Your task to perform on an android device: open app "PUBG MOBILE" (install if not already installed) Image 0: 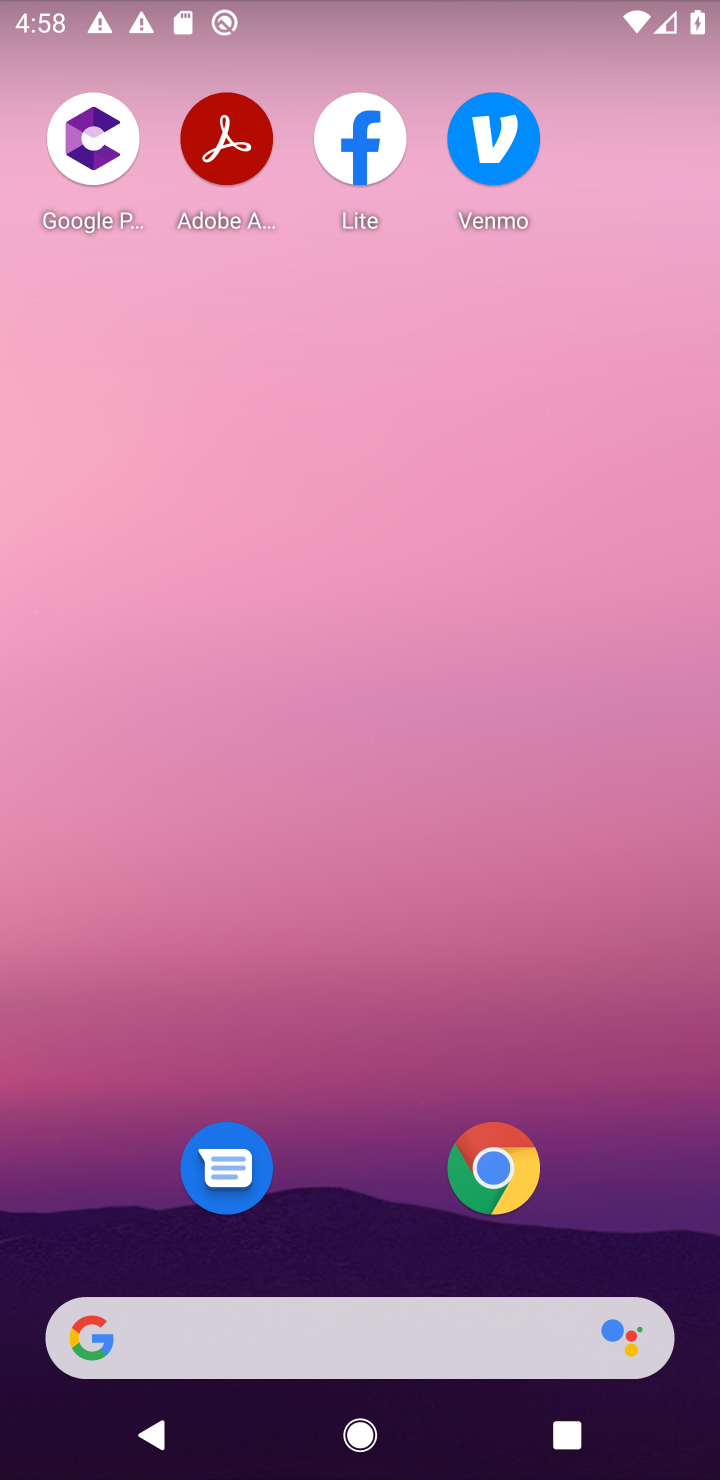
Step 0: drag from (324, 1073) to (388, 339)
Your task to perform on an android device: open app "PUBG MOBILE" (install if not already installed) Image 1: 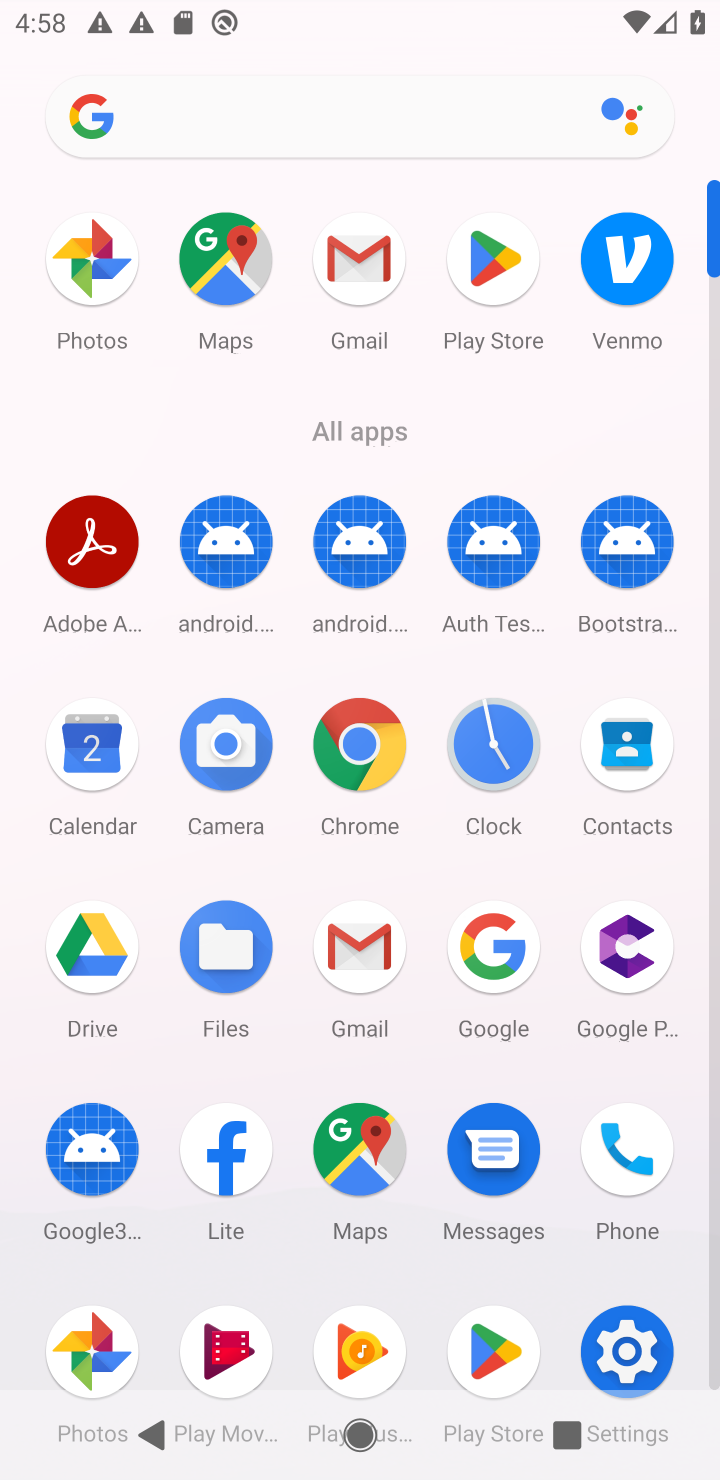
Step 1: click (499, 305)
Your task to perform on an android device: open app "PUBG MOBILE" (install if not already installed) Image 2: 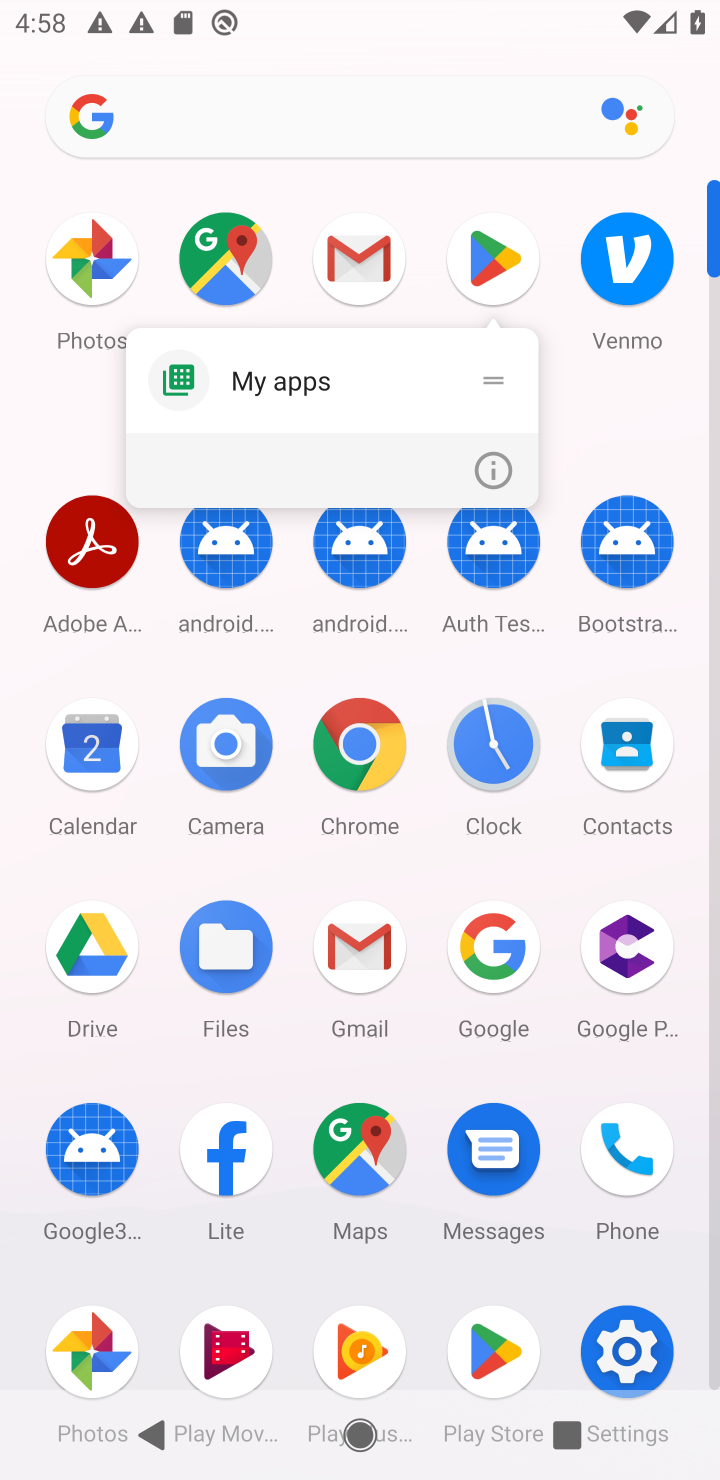
Step 2: click (514, 236)
Your task to perform on an android device: open app "PUBG MOBILE" (install if not already installed) Image 3: 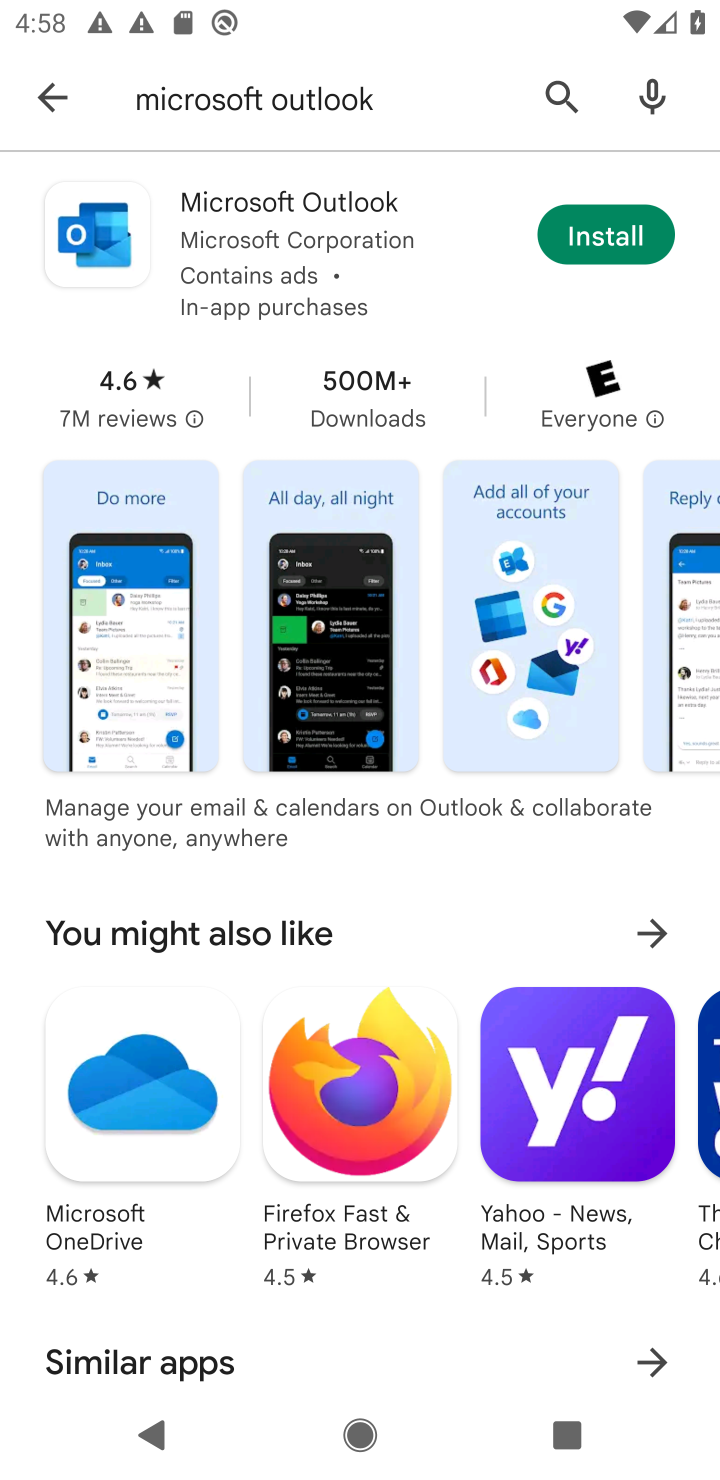
Step 3: click (261, 130)
Your task to perform on an android device: open app "PUBG MOBILE" (install if not already installed) Image 4: 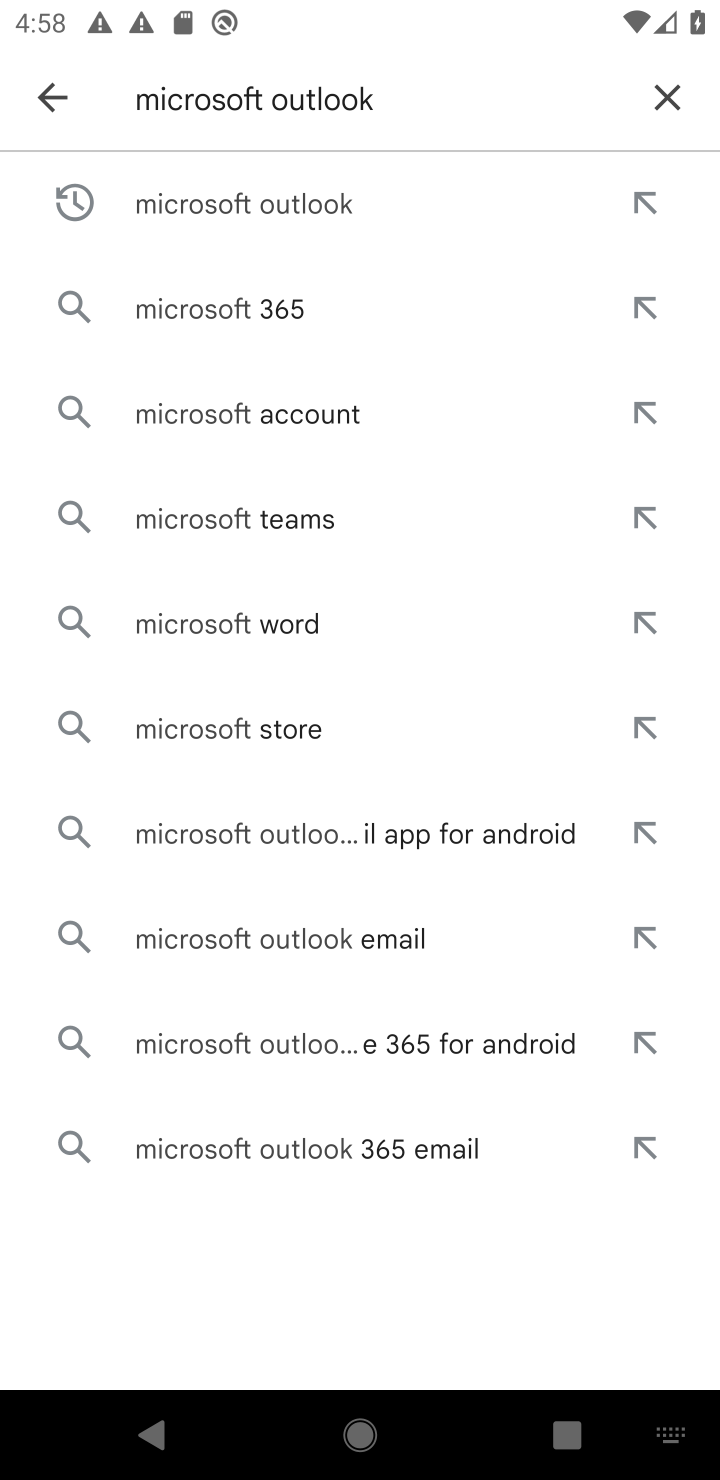
Step 4: click (669, 98)
Your task to perform on an android device: open app "PUBG MOBILE" (install if not already installed) Image 5: 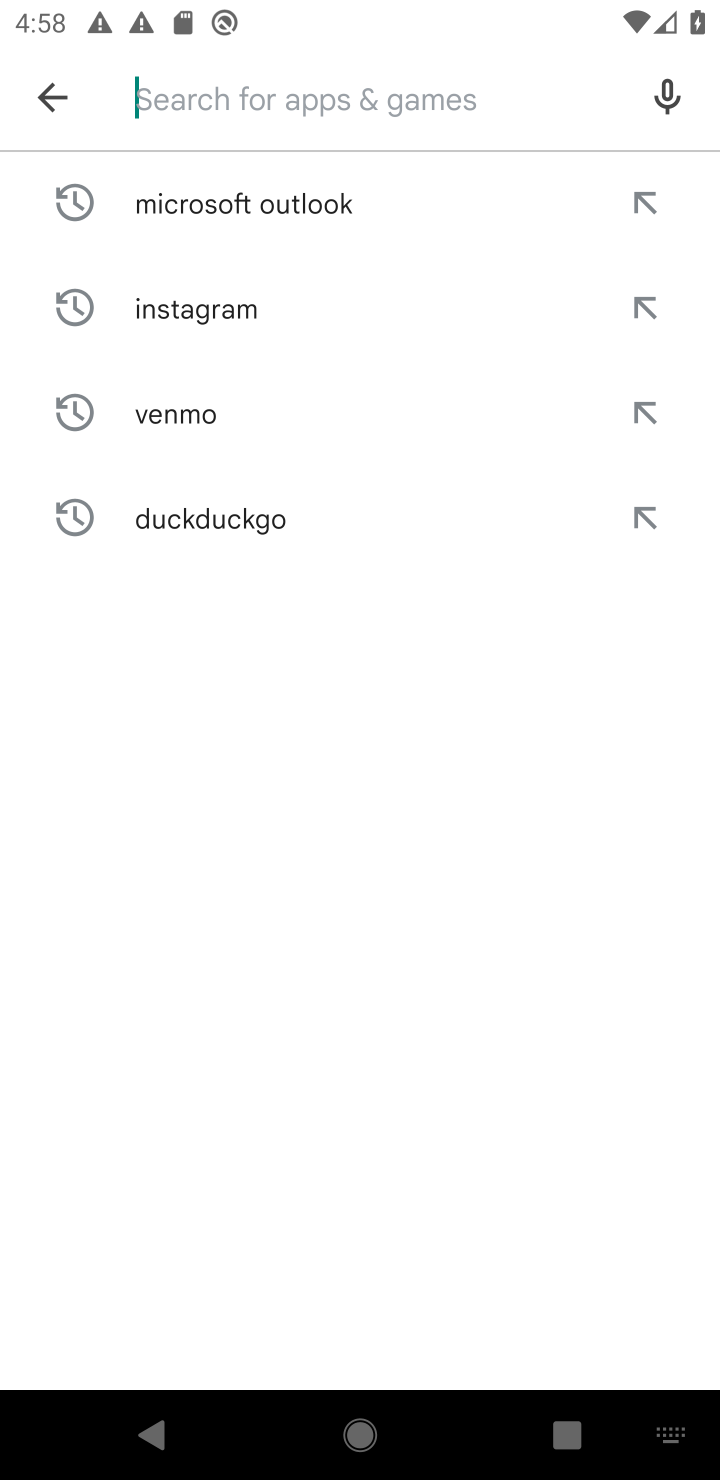
Step 5: type "Pubg Mobile"
Your task to perform on an android device: open app "PUBG MOBILE" (install if not already installed) Image 6: 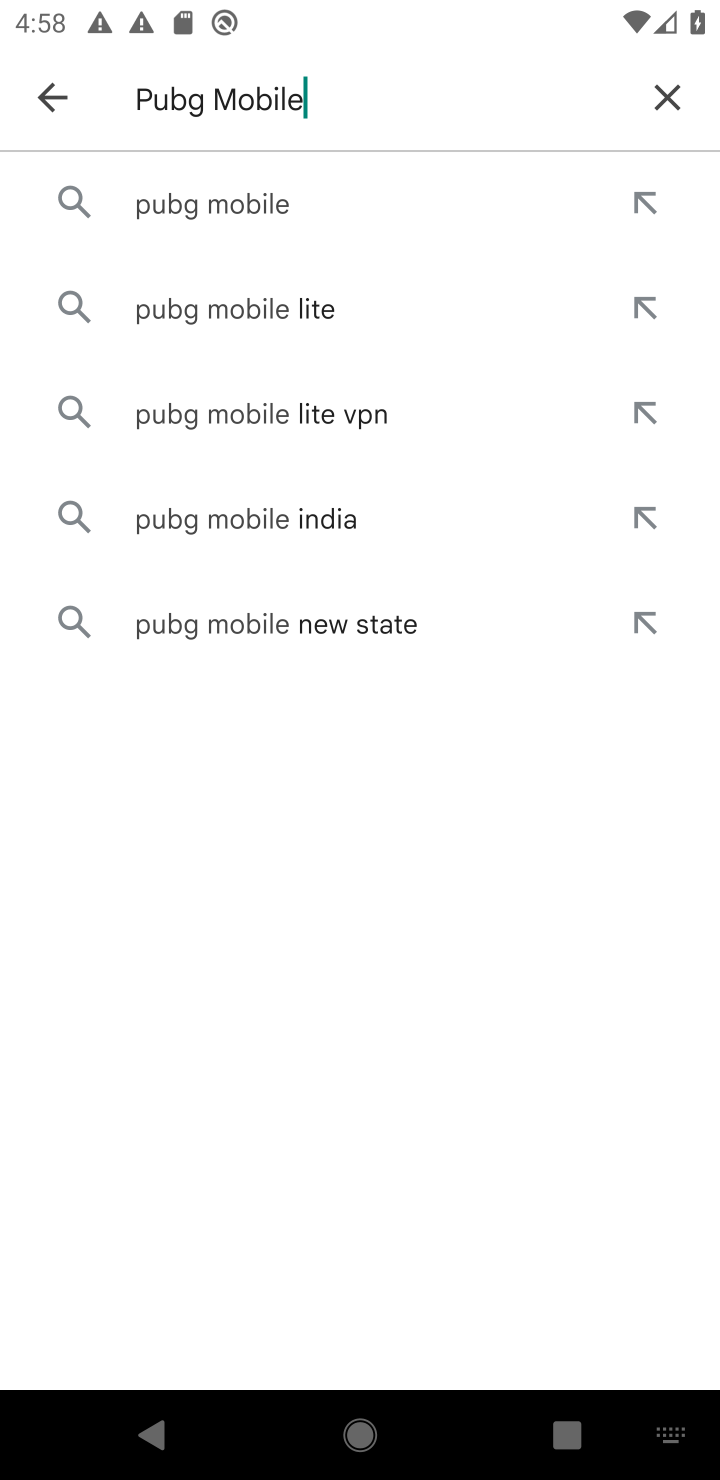
Step 6: click (210, 214)
Your task to perform on an android device: open app "PUBG MOBILE" (install if not already installed) Image 7: 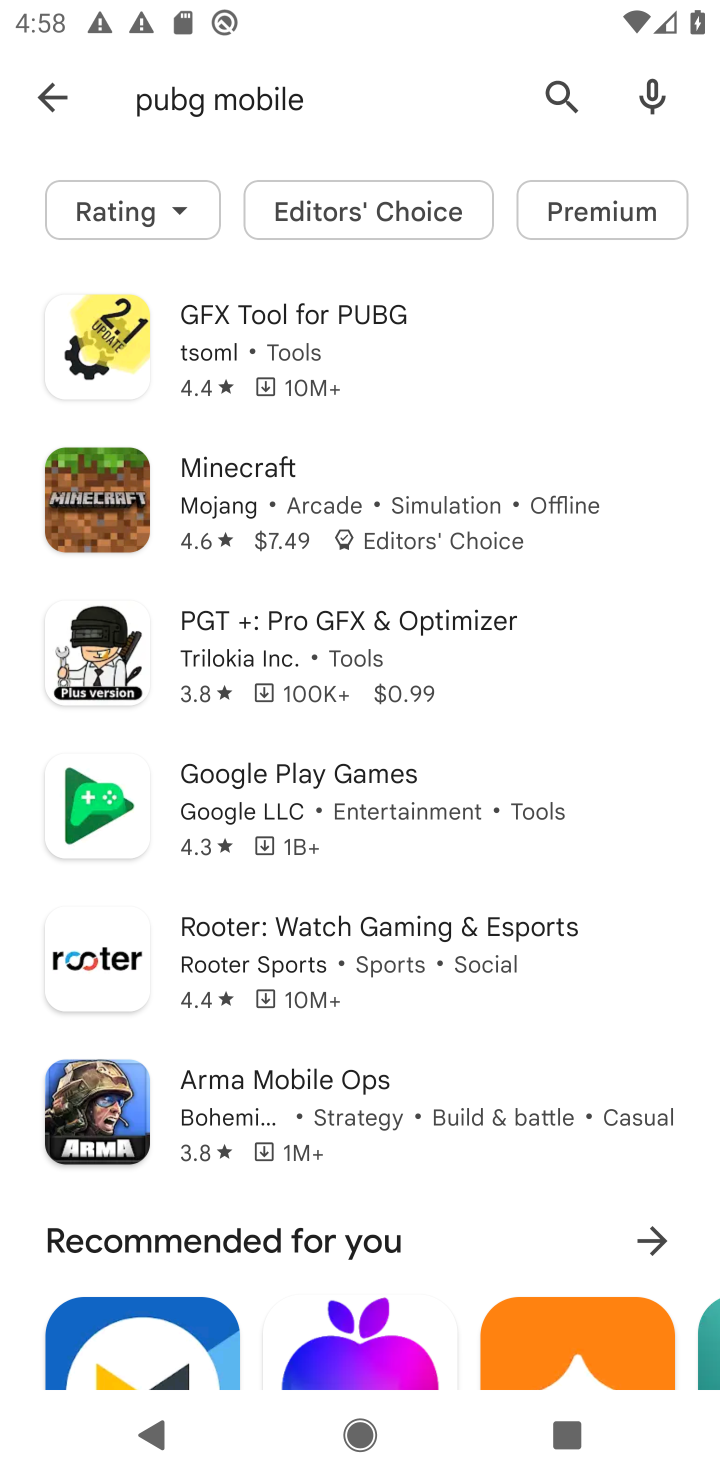
Step 7: task complete